Your task to perform on an android device: Open Google Image 0: 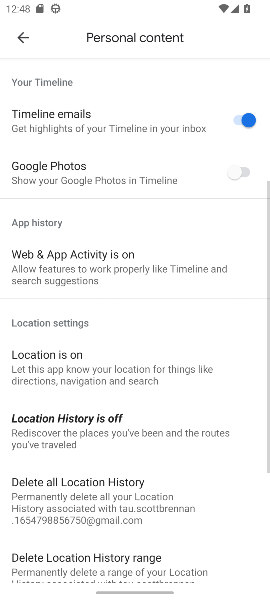
Step 0: drag from (120, 553) to (196, 11)
Your task to perform on an android device: Open Google Image 1: 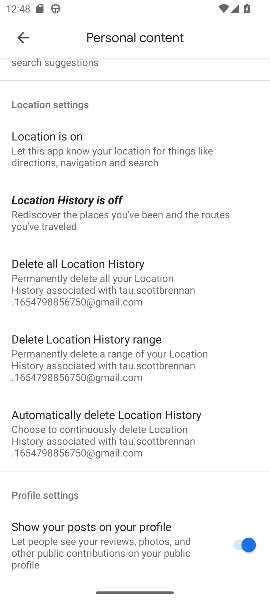
Step 1: press home button
Your task to perform on an android device: Open Google Image 2: 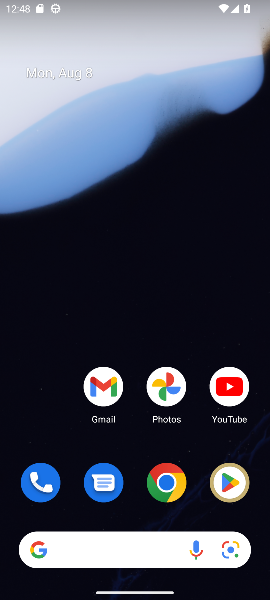
Step 2: drag from (115, 547) to (139, 90)
Your task to perform on an android device: Open Google Image 3: 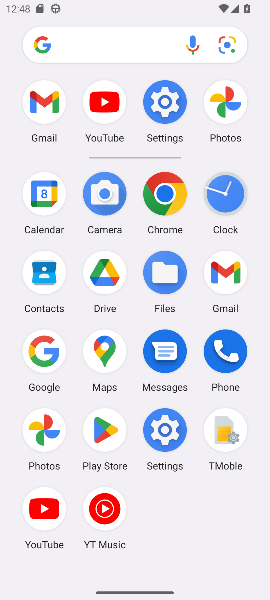
Step 3: click (163, 203)
Your task to perform on an android device: Open Google Image 4: 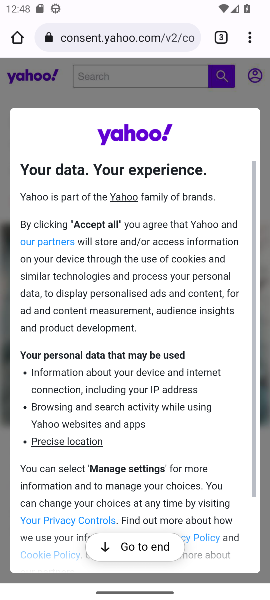
Step 4: task complete